Your task to perform on an android device: see sites visited before in the chrome app Image 0: 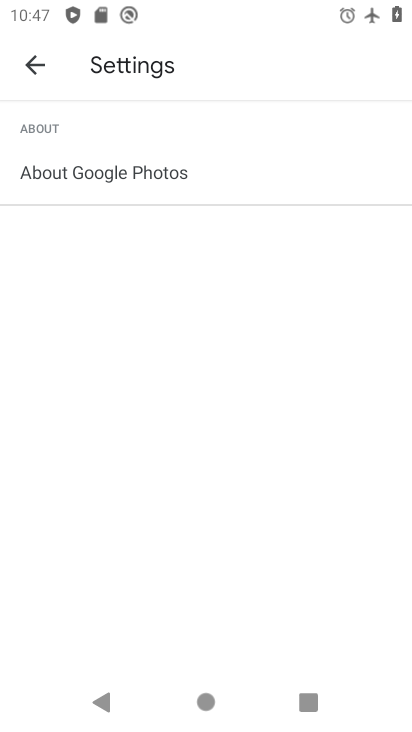
Step 0: press home button
Your task to perform on an android device: see sites visited before in the chrome app Image 1: 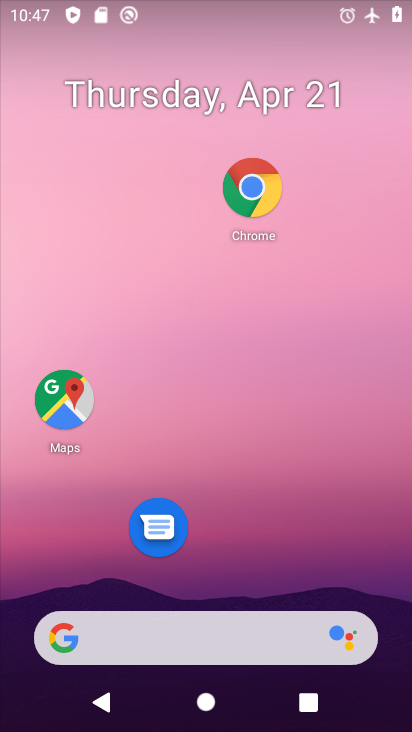
Step 1: drag from (283, 527) to (405, 125)
Your task to perform on an android device: see sites visited before in the chrome app Image 2: 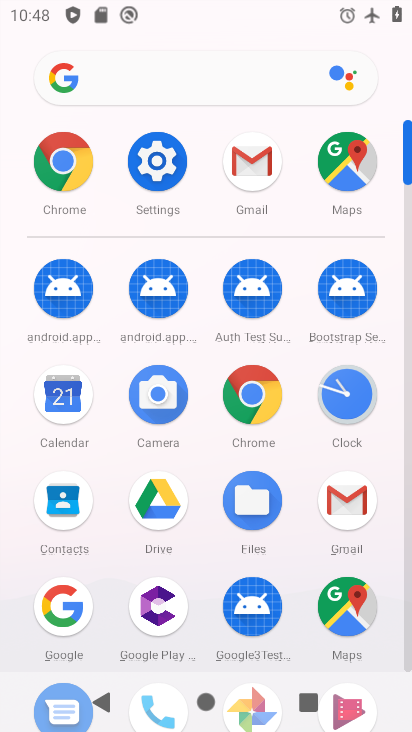
Step 2: click (261, 406)
Your task to perform on an android device: see sites visited before in the chrome app Image 3: 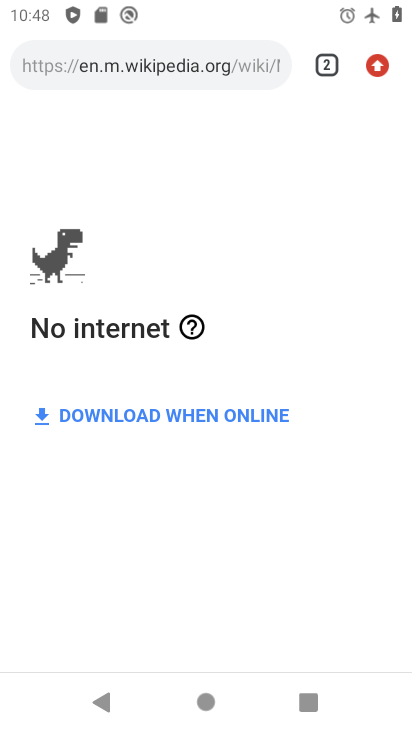
Step 3: click (380, 61)
Your task to perform on an android device: see sites visited before in the chrome app Image 4: 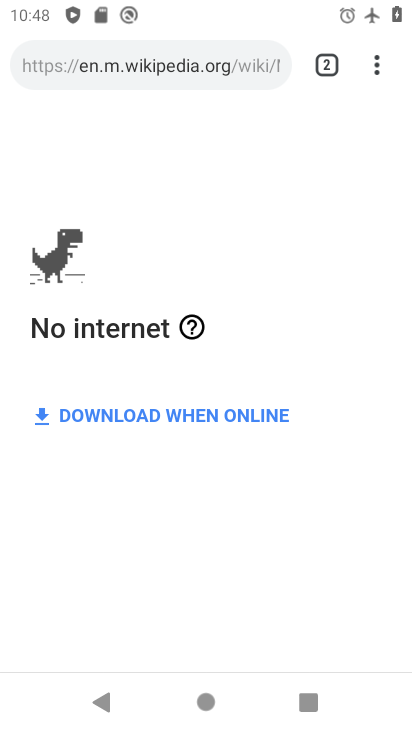
Step 4: click (372, 80)
Your task to perform on an android device: see sites visited before in the chrome app Image 5: 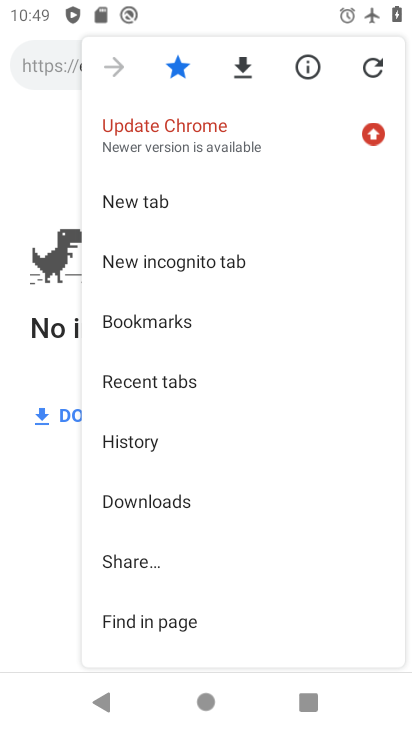
Step 5: click (201, 441)
Your task to perform on an android device: see sites visited before in the chrome app Image 6: 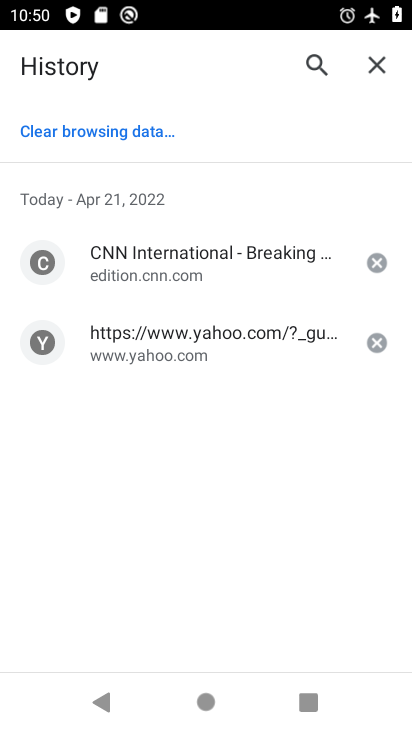
Step 6: task complete